Your task to perform on an android device: Open wifi settings Image 0: 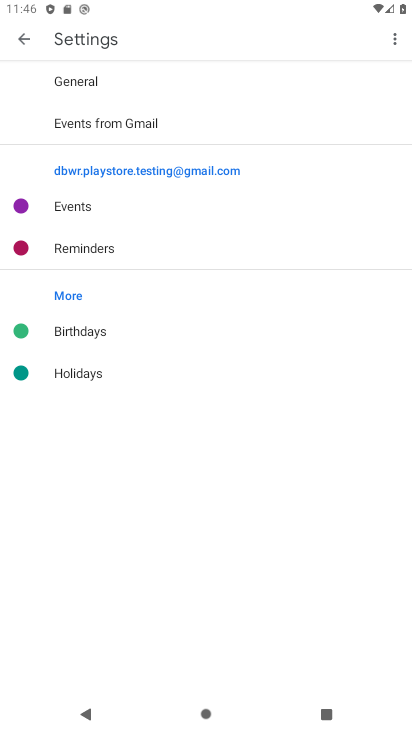
Step 0: press back button
Your task to perform on an android device: Open wifi settings Image 1: 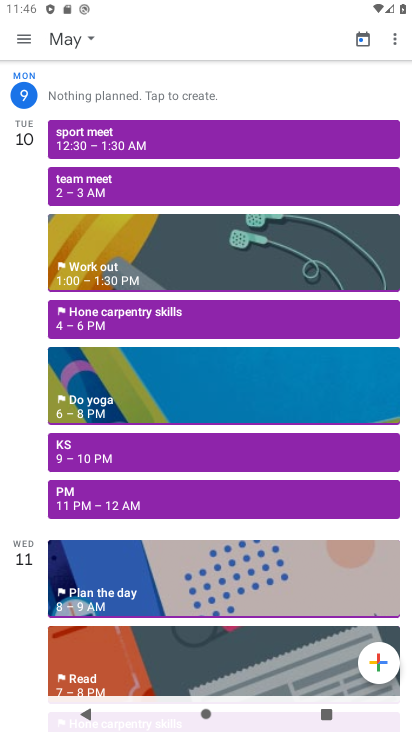
Step 1: press home button
Your task to perform on an android device: Open wifi settings Image 2: 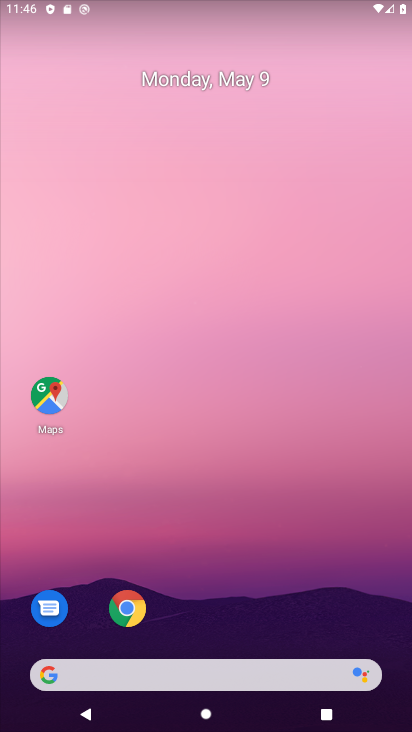
Step 2: drag from (233, 587) to (172, 11)
Your task to perform on an android device: Open wifi settings Image 3: 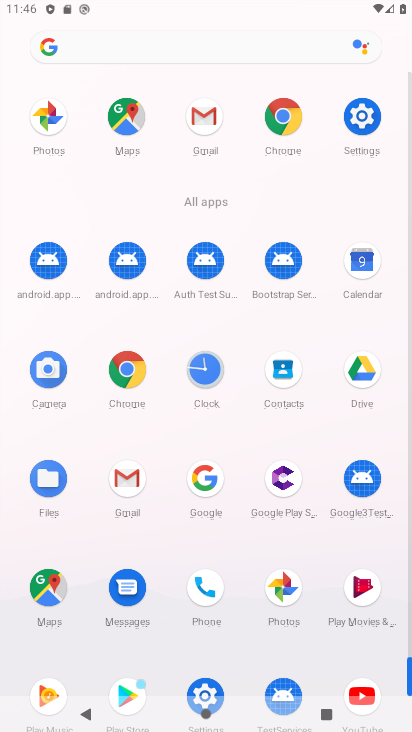
Step 3: click (362, 110)
Your task to perform on an android device: Open wifi settings Image 4: 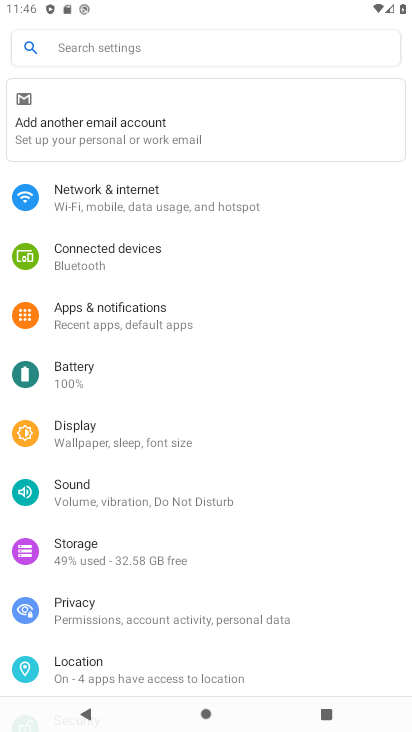
Step 4: click (105, 197)
Your task to perform on an android device: Open wifi settings Image 5: 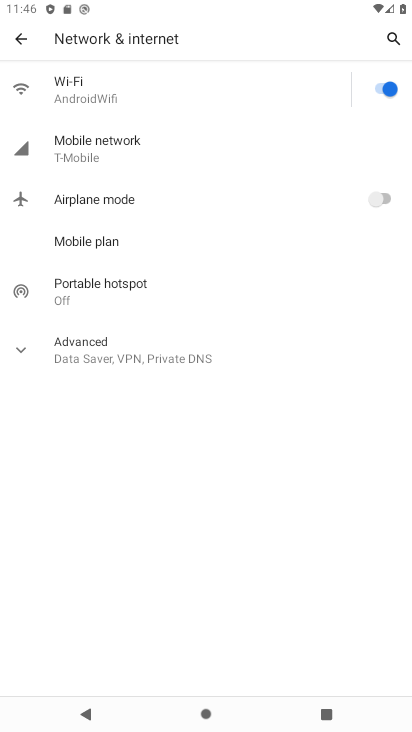
Step 5: click (113, 81)
Your task to perform on an android device: Open wifi settings Image 6: 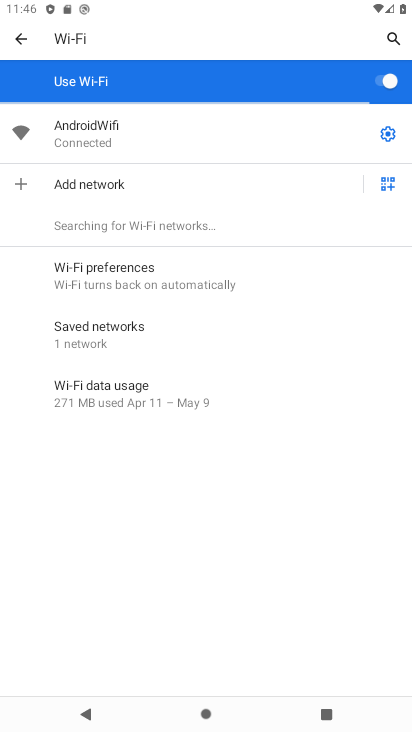
Step 6: task complete